Your task to perform on an android device: Open settings Image 0: 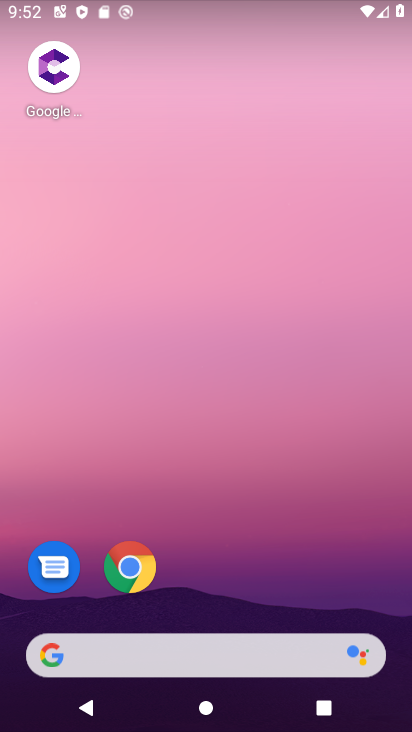
Step 0: drag from (231, 461) to (253, 39)
Your task to perform on an android device: Open settings Image 1: 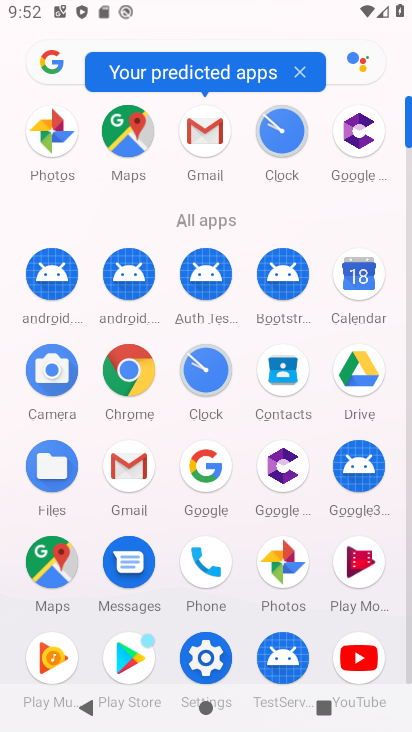
Step 1: click (206, 661)
Your task to perform on an android device: Open settings Image 2: 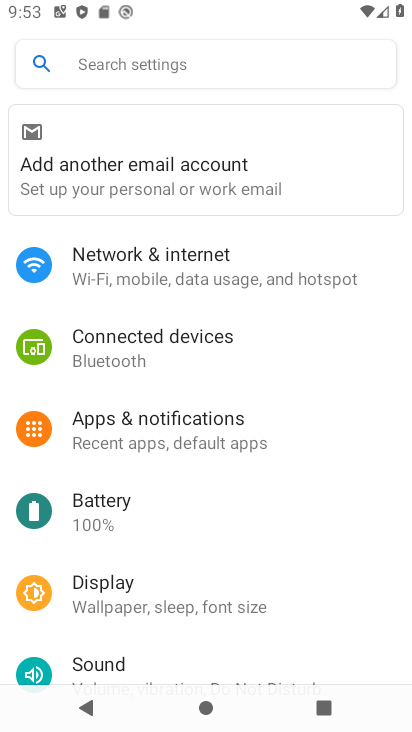
Step 2: task complete